Your task to perform on an android device: Turn off the flashlight Image 0: 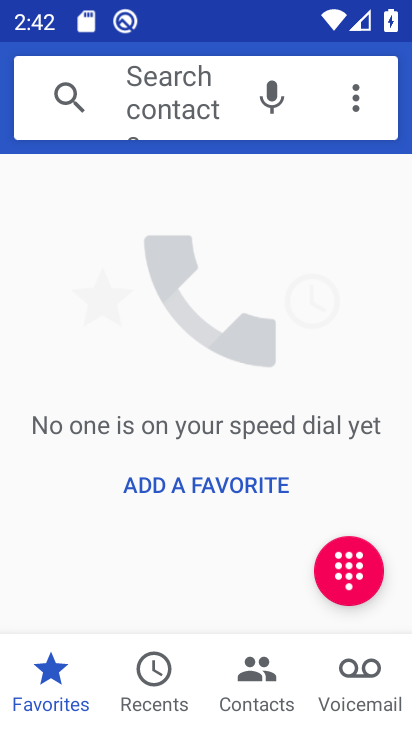
Step 0: press back button
Your task to perform on an android device: Turn off the flashlight Image 1: 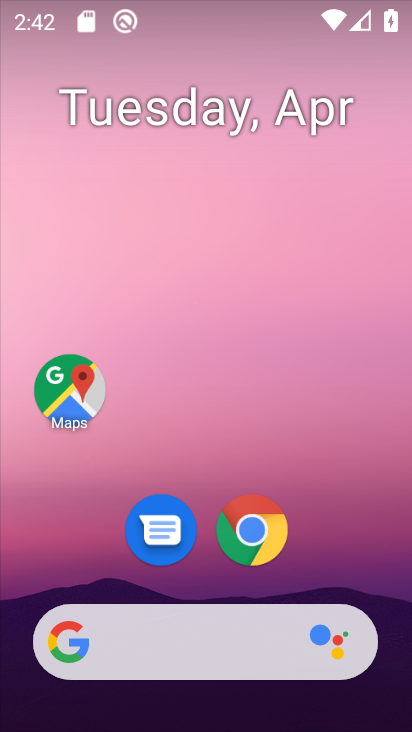
Step 1: drag from (205, 723) to (184, 7)
Your task to perform on an android device: Turn off the flashlight Image 2: 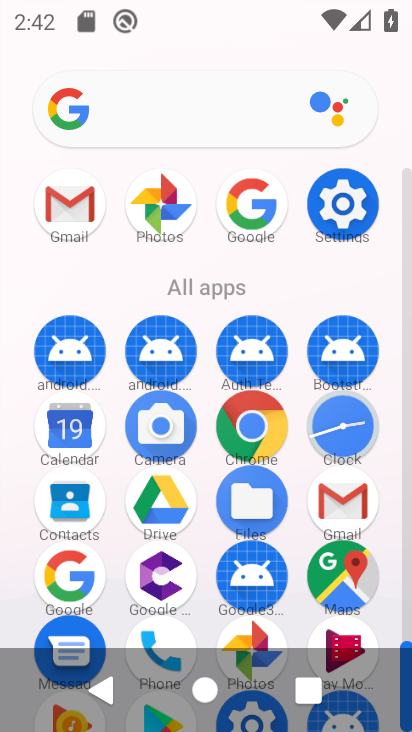
Step 2: click (342, 199)
Your task to perform on an android device: Turn off the flashlight Image 3: 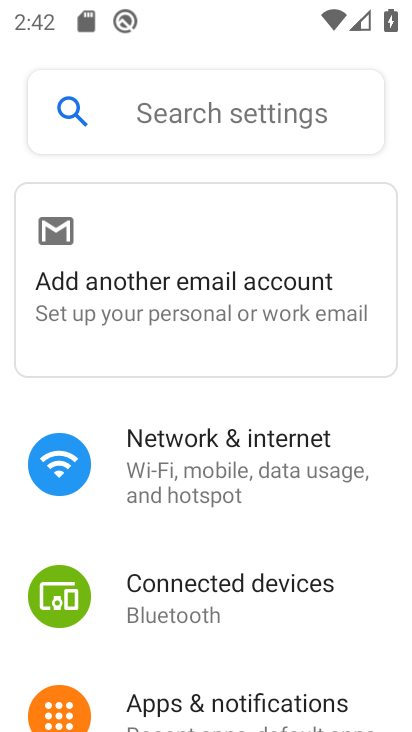
Step 3: task complete